Your task to perform on an android device: See recent photos Image 0: 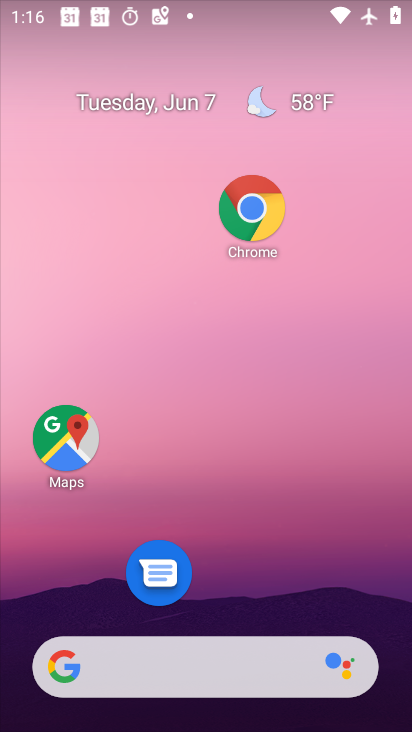
Step 0: drag from (212, 596) to (158, 104)
Your task to perform on an android device: See recent photos Image 1: 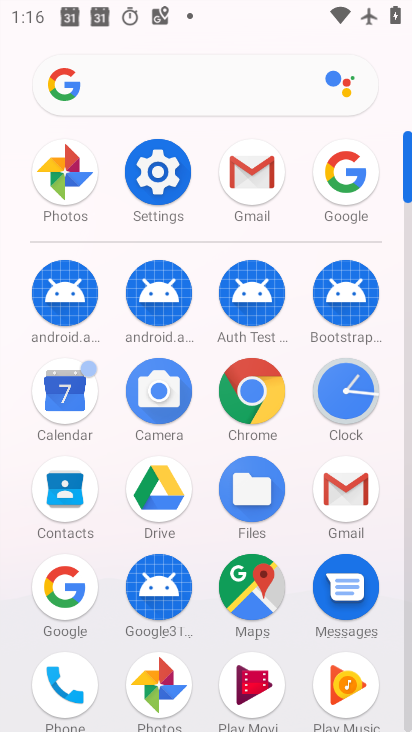
Step 1: click (63, 183)
Your task to perform on an android device: See recent photos Image 2: 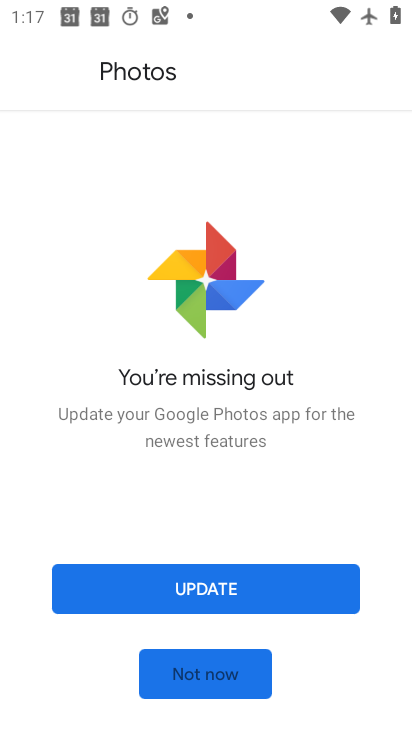
Step 2: click (161, 648)
Your task to perform on an android device: See recent photos Image 3: 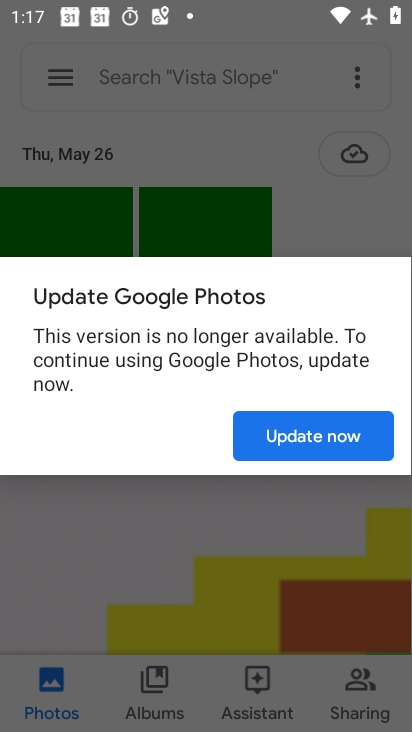
Step 3: click (294, 421)
Your task to perform on an android device: See recent photos Image 4: 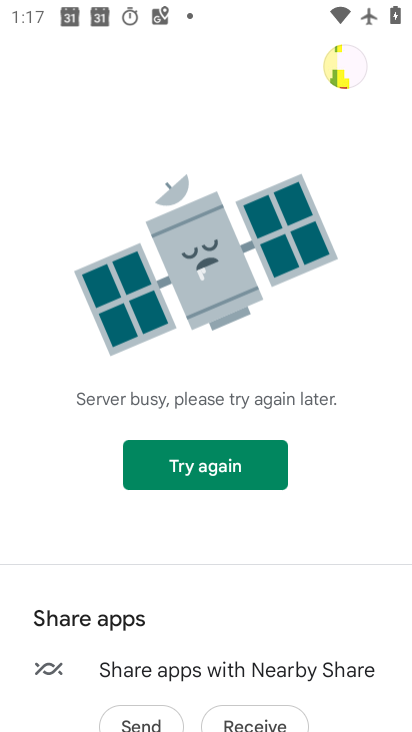
Step 4: task complete